Your task to perform on an android device: Go to battery settings Image 0: 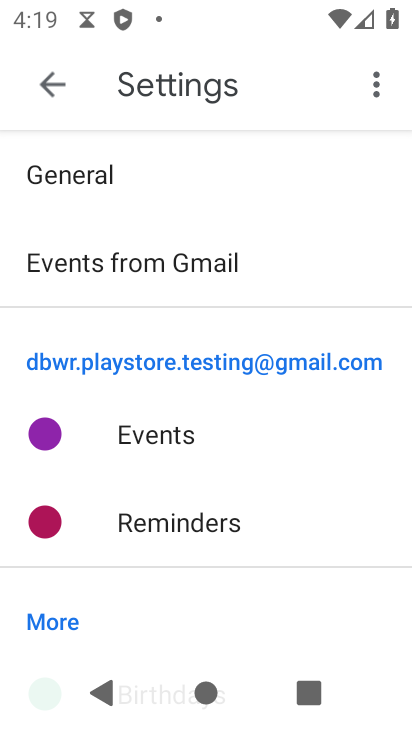
Step 0: press home button
Your task to perform on an android device: Go to battery settings Image 1: 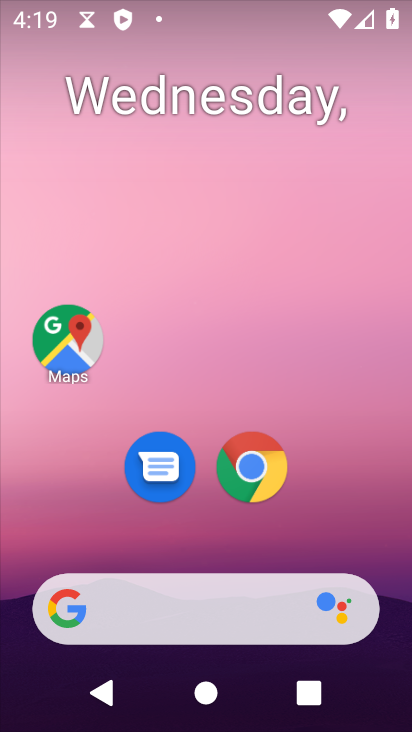
Step 1: drag from (383, 465) to (303, 0)
Your task to perform on an android device: Go to battery settings Image 2: 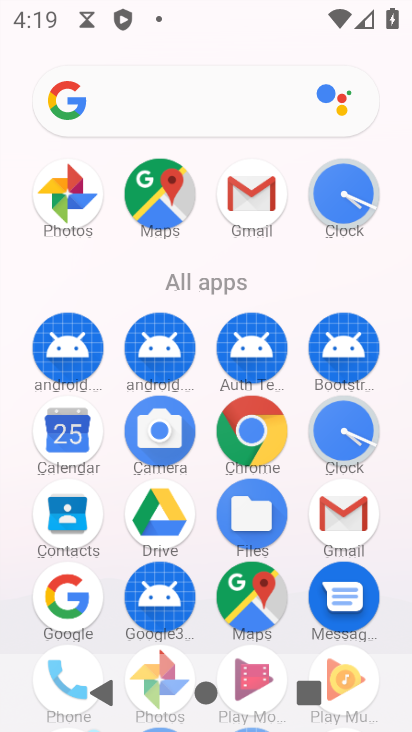
Step 2: drag from (388, 560) to (381, 184)
Your task to perform on an android device: Go to battery settings Image 3: 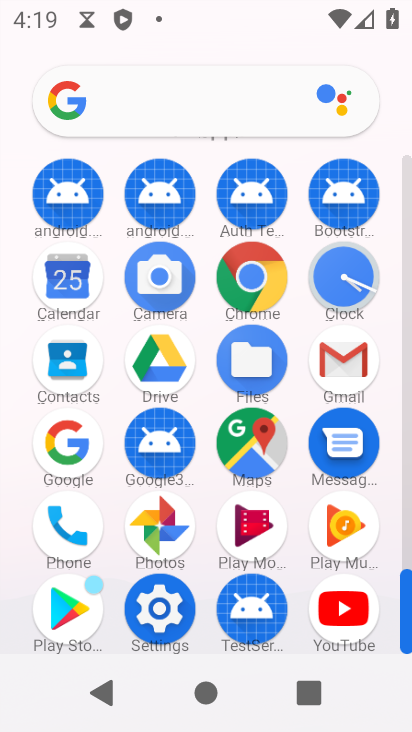
Step 3: click (160, 620)
Your task to perform on an android device: Go to battery settings Image 4: 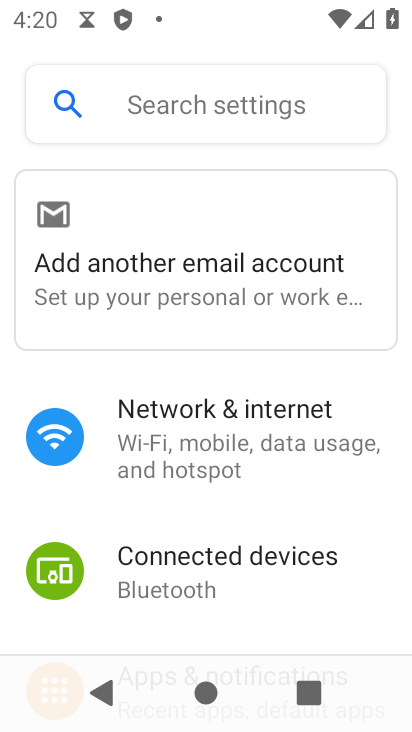
Step 4: drag from (285, 516) to (216, 117)
Your task to perform on an android device: Go to battery settings Image 5: 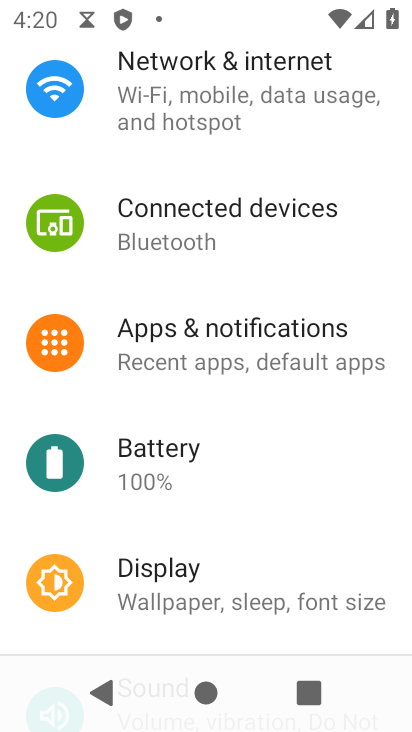
Step 5: click (113, 477)
Your task to perform on an android device: Go to battery settings Image 6: 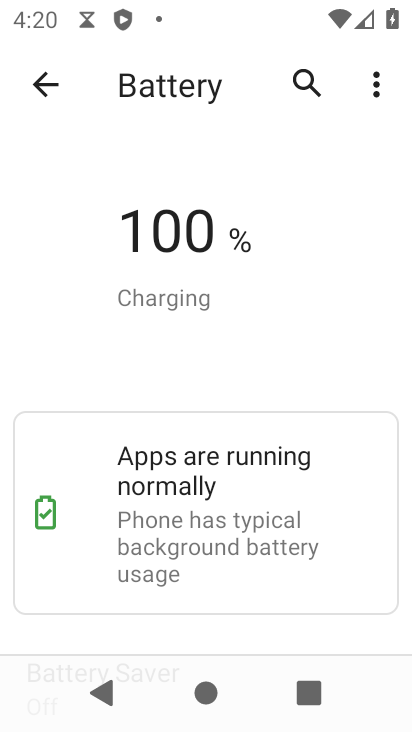
Step 6: task complete